Your task to perform on an android device: turn pop-ups on in chrome Image 0: 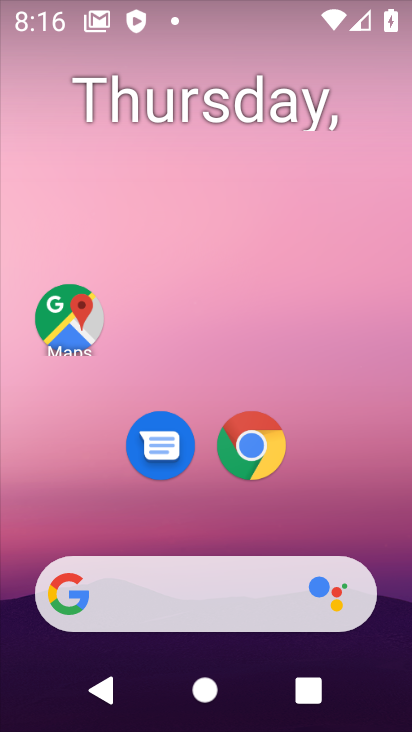
Step 0: click (255, 476)
Your task to perform on an android device: turn pop-ups on in chrome Image 1: 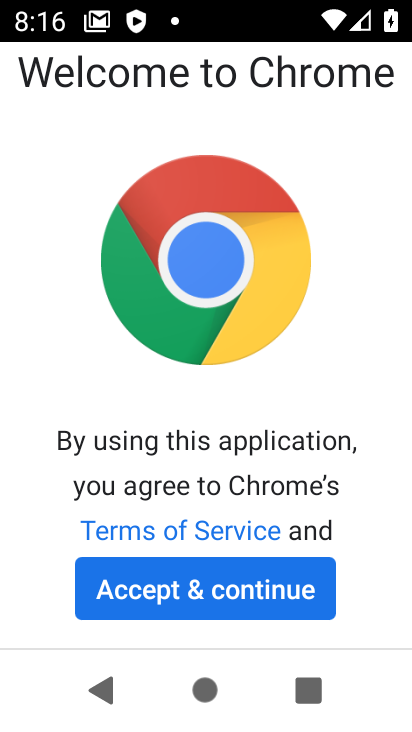
Step 1: click (194, 581)
Your task to perform on an android device: turn pop-ups on in chrome Image 2: 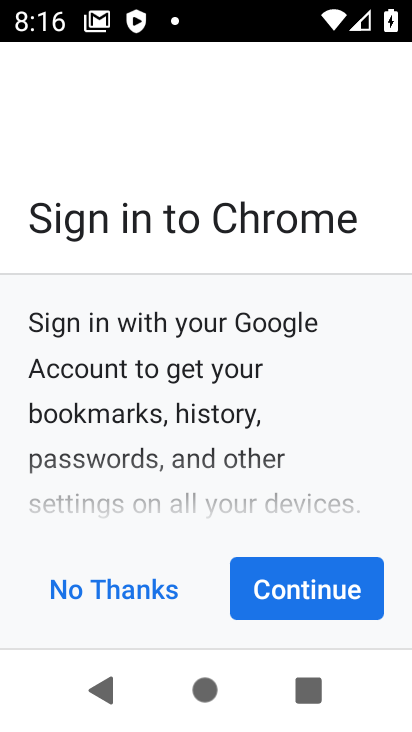
Step 2: click (309, 576)
Your task to perform on an android device: turn pop-ups on in chrome Image 3: 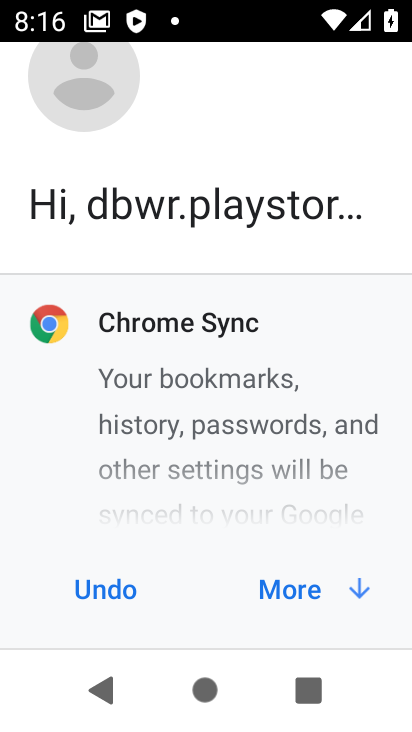
Step 3: click (309, 576)
Your task to perform on an android device: turn pop-ups on in chrome Image 4: 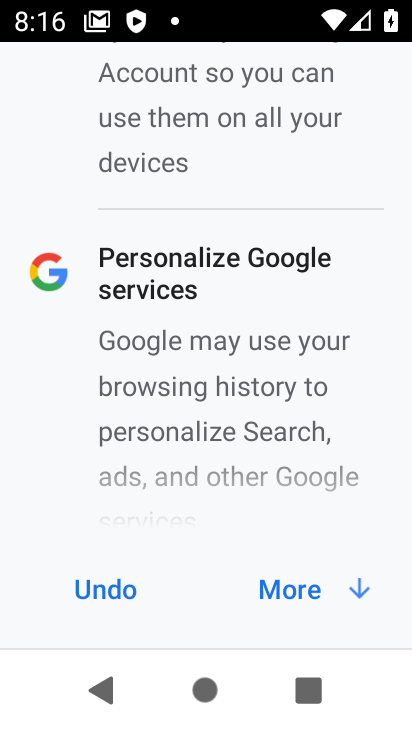
Step 4: click (309, 576)
Your task to perform on an android device: turn pop-ups on in chrome Image 5: 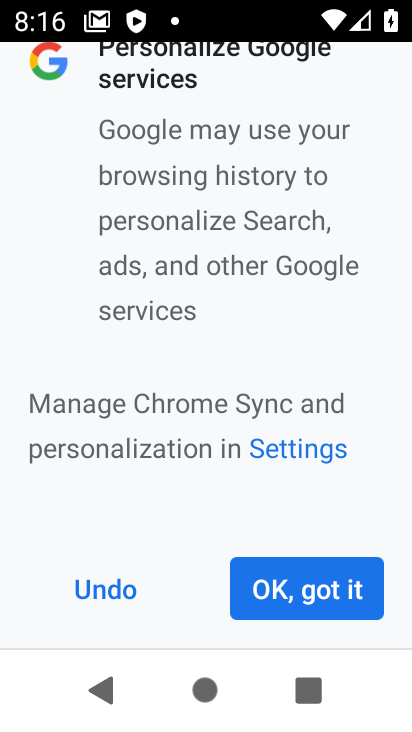
Step 5: click (321, 581)
Your task to perform on an android device: turn pop-ups on in chrome Image 6: 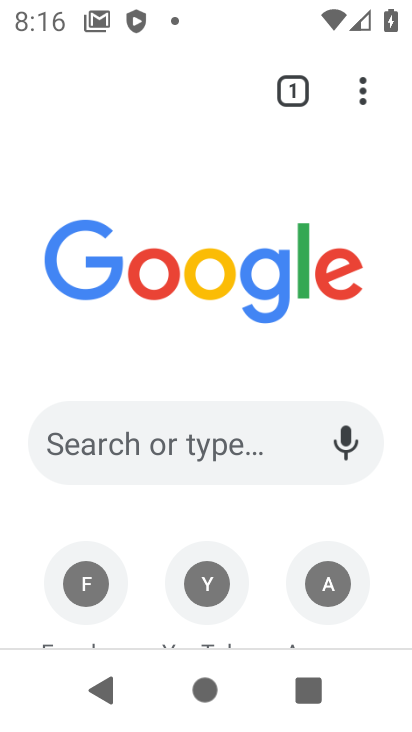
Step 6: click (360, 93)
Your task to perform on an android device: turn pop-ups on in chrome Image 7: 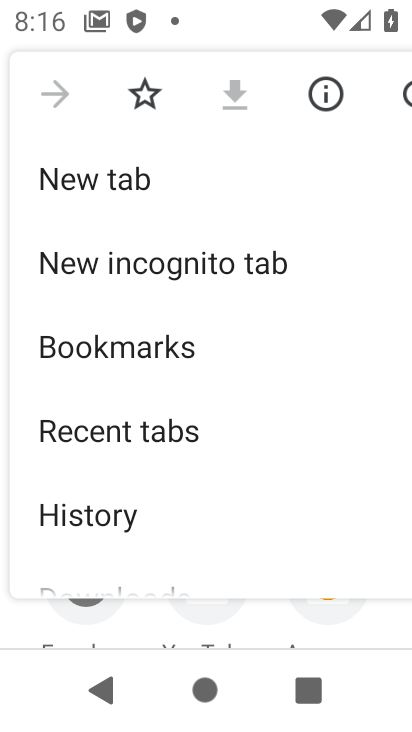
Step 7: drag from (167, 541) to (144, 194)
Your task to perform on an android device: turn pop-ups on in chrome Image 8: 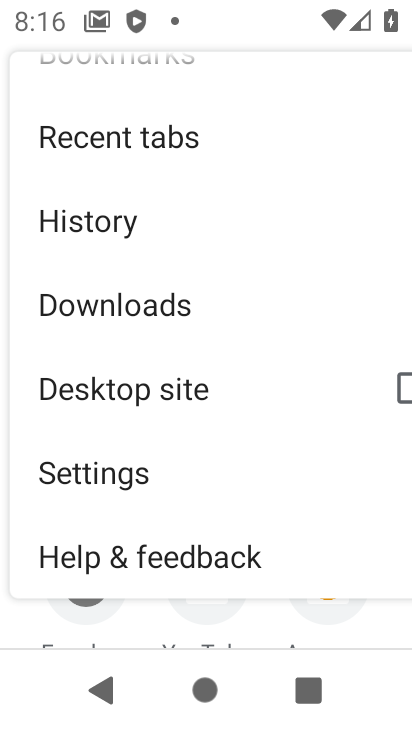
Step 8: click (88, 509)
Your task to perform on an android device: turn pop-ups on in chrome Image 9: 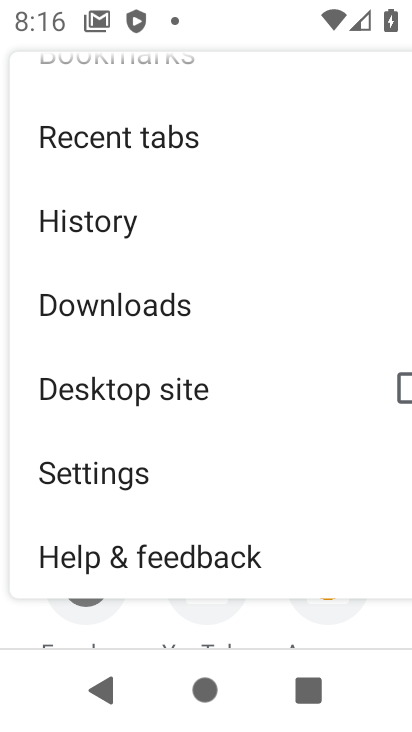
Step 9: click (88, 509)
Your task to perform on an android device: turn pop-ups on in chrome Image 10: 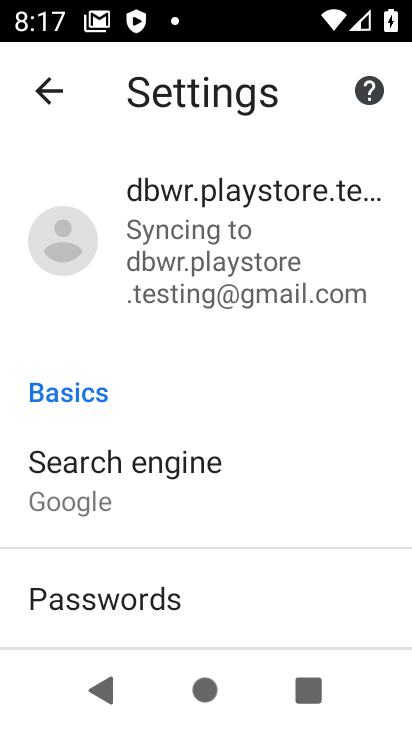
Step 10: drag from (212, 549) to (185, 197)
Your task to perform on an android device: turn pop-ups on in chrome Image 11: 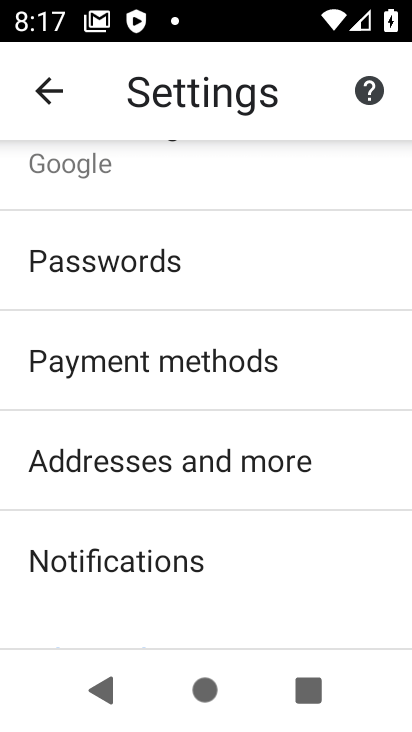
Step 11: drag from (242, 498) to (236, 172)
Your task to perform on an android device: turn pop-ups on in chrome Image 12: 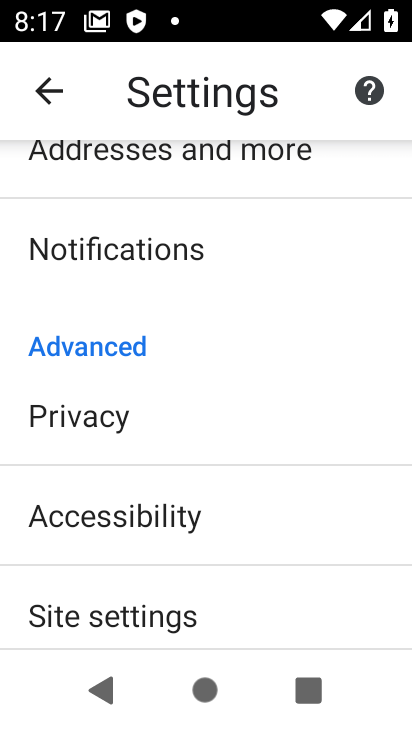
Step 12: click (113, 594)
Your task to perform on an android device: turn pop-ups on in chrome Image 13: 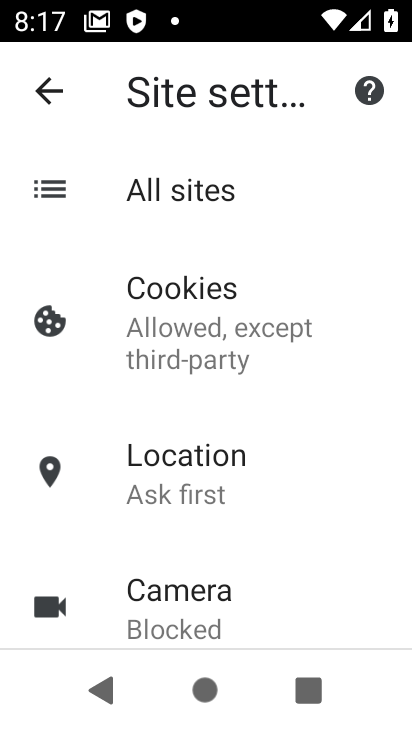
Step 13: drag from (113, 594) to (102, 116)
Your task to perform on an android device: turn pop-ups on in chrome Image 14: 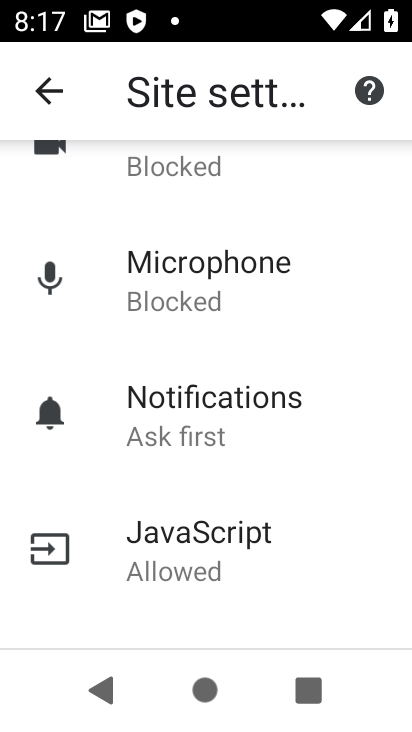
Step 14: drag from (211, 561) to (186, 240)
Your task to perform on an android device: turn pop-ups on in chrome Image 15: 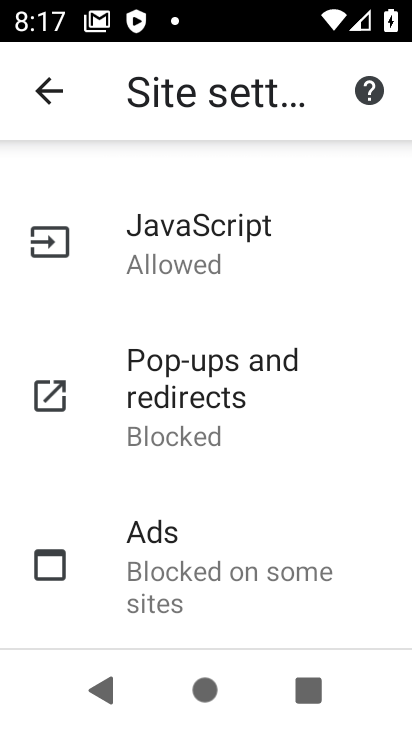
Step 15: click (175, 383)
Your task to perform on an android device: turn pop-ups on in chrome Image 16: 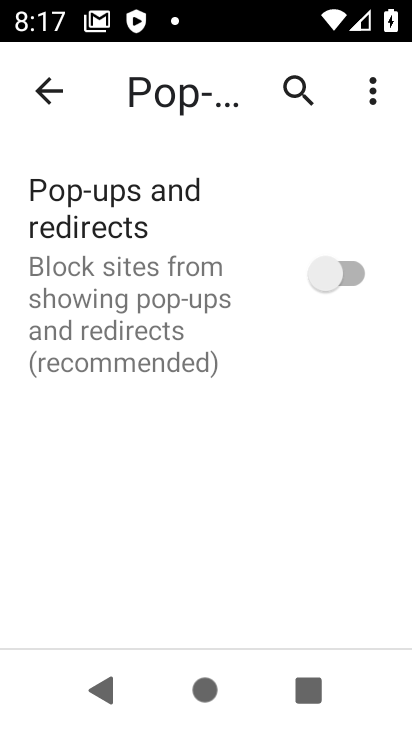
Step 16: click (355, 259)
Your task to perform on an android device: turn pop-ups on in chrome Image 17: 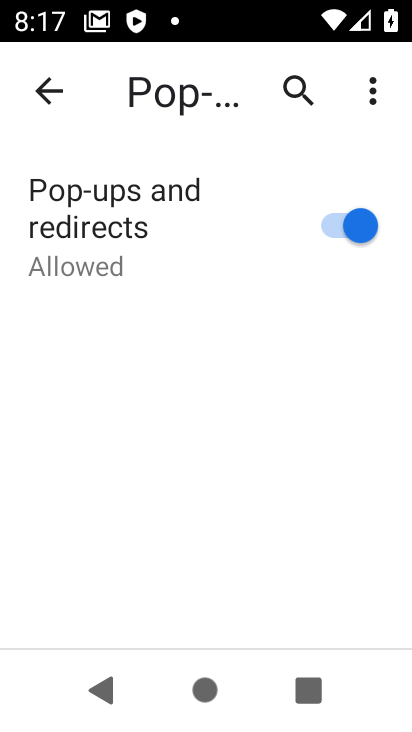
Step 17: task complete